Your task to perform on an android device: Open network settings Image 0: 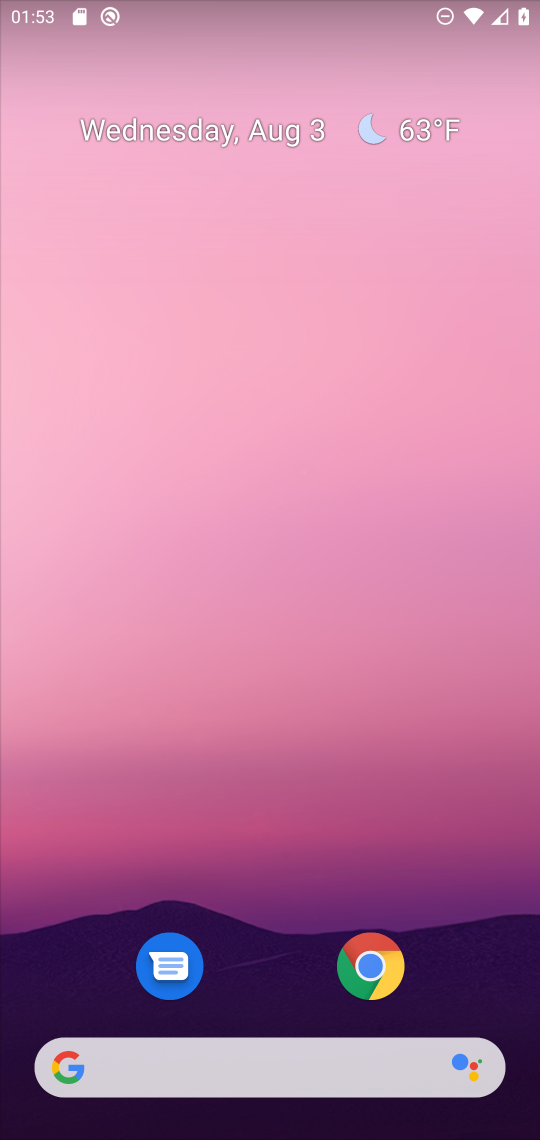
Step 0: drag from (282, 980) to (243, 409)
Your task to perform on an android device: Open network settings Image 1: 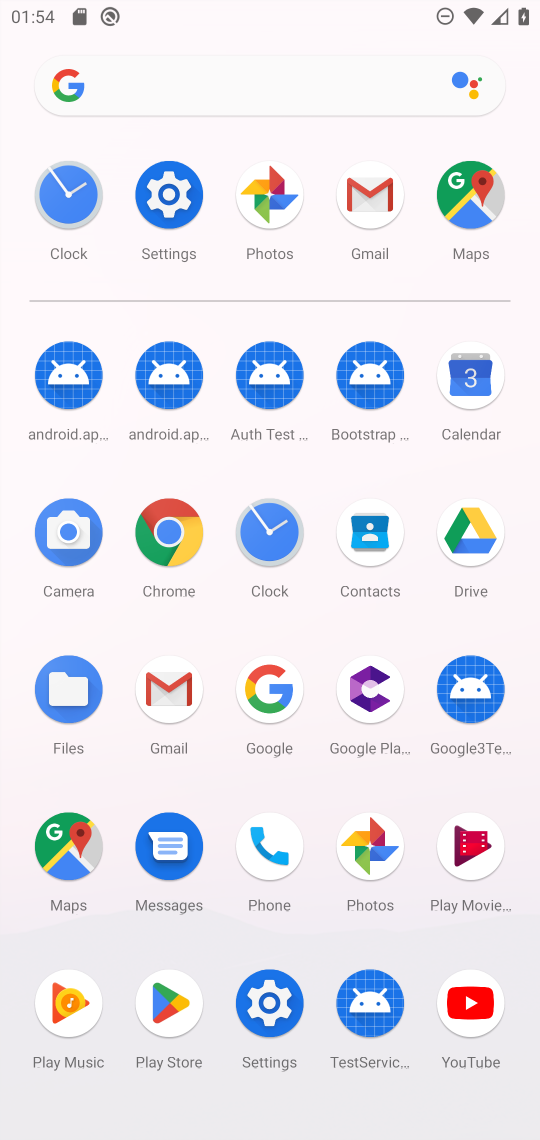
Step 1: click (179, 227)
Your task to perform on an android device: Open network settings Image 2: 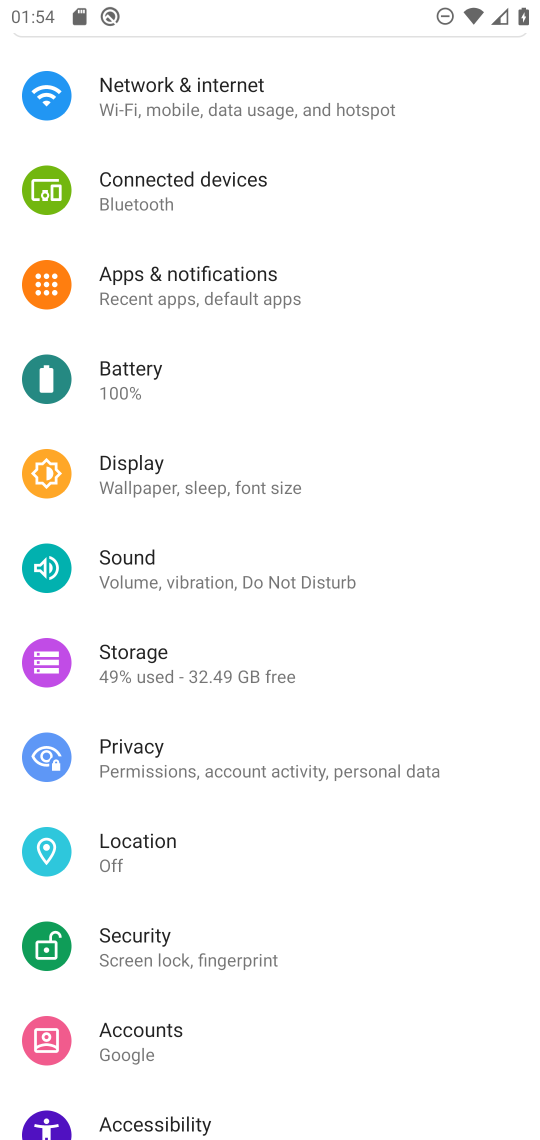
Step 2: click (226, 121)
Your task to perform on an android device: Open network settings Image 3: 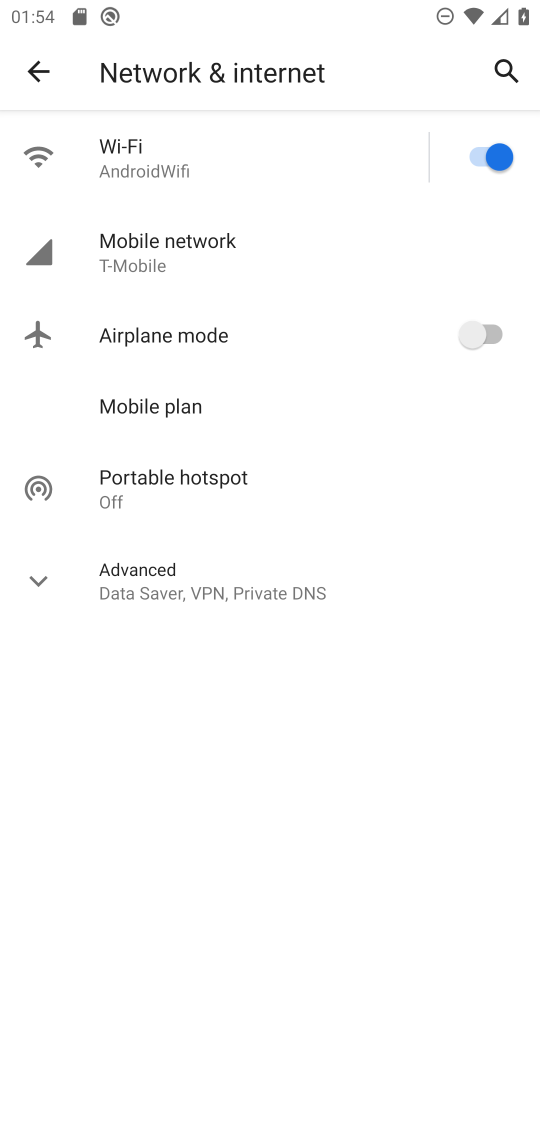
Step 3: task complete